Your task to perform on an android device: Open the Play Movies app and select the watchlist tab. Image 0: 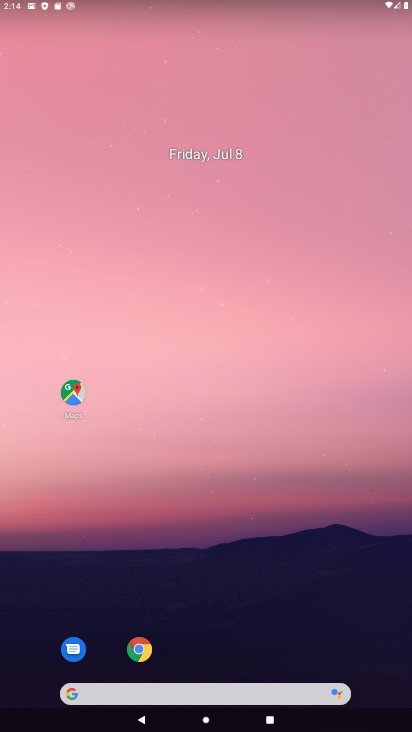
Step 0: drag from (294, 508) to (201, 129)
Your task to perform on an android device: Open the Play Movies app and select the watchlist tab. Image 1: 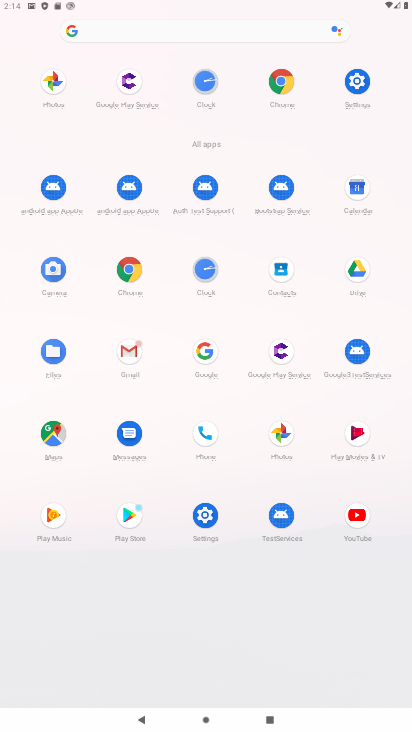
Step 1: click (351, 434)
Your task to perform on an android device: Open the Play Movies app and select the watchlist tab. Image 2: 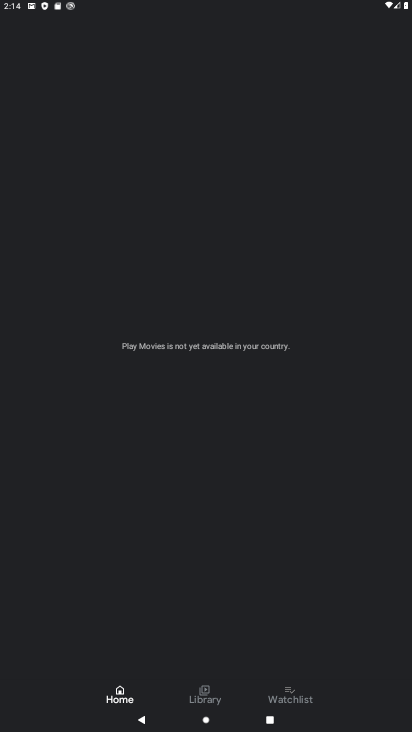
Step 2: click (300, 696)
Your task to perform on an android device: Open the Play Movies app and select the watchlist tab. Image 3: 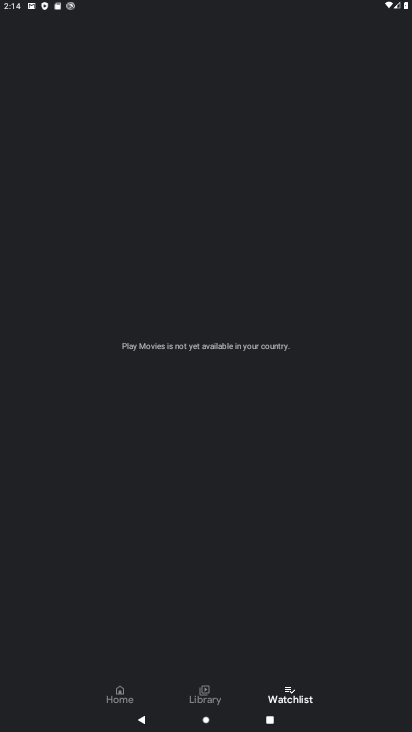
Step 3: task complete